Your task to perform on an android device: Go to Google maps Image 0: 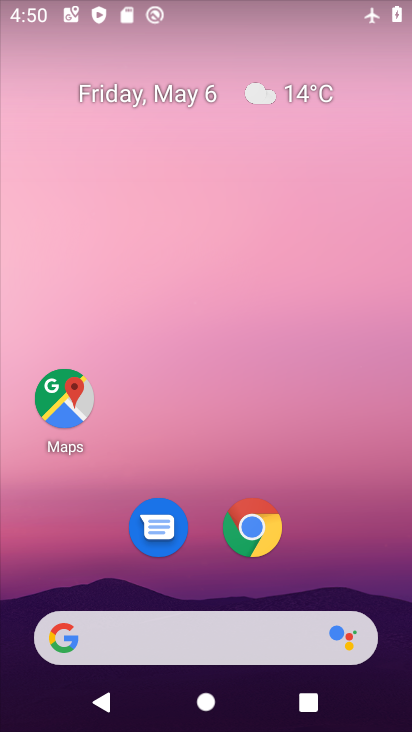
Step 0: drag from (230, 726) to (231, 77)
Your task to perform on an android device: Go to Google maps Image 1: 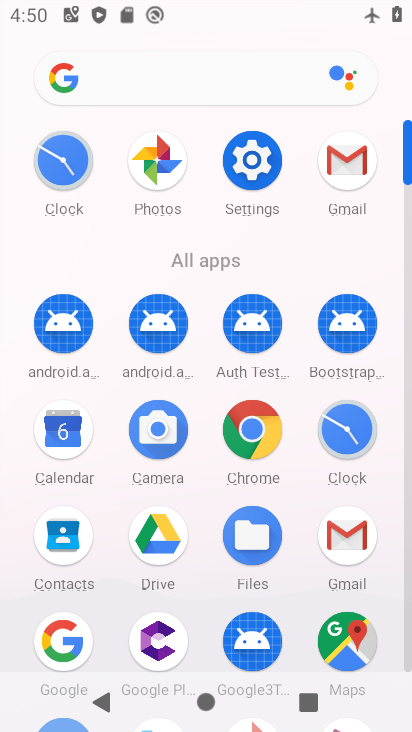
Step 1: click (351, 637)
Your task to perform on an android device: Go to Google maps Image 2: 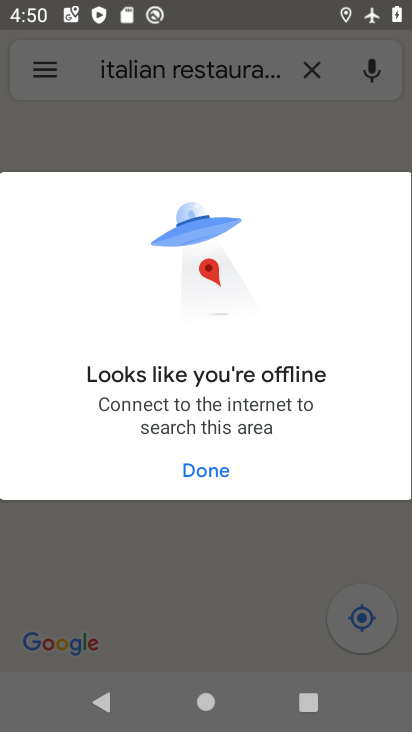
Step 2: task complete